Your task to perform on an android device: Go to notification settings Image 0: 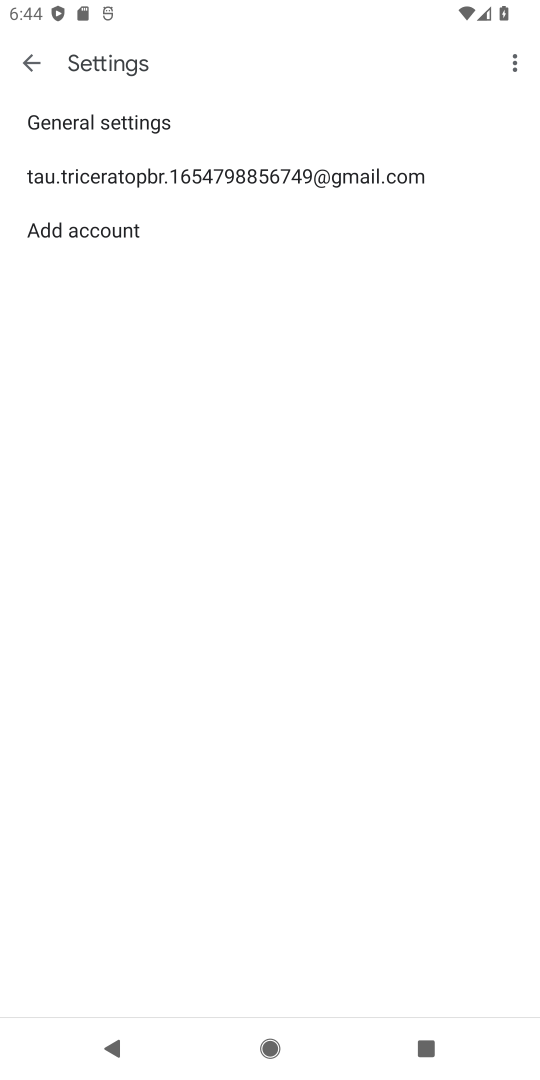
Step 0: press home button
Your task to perform on an android device: Go to notification settings Image 1: 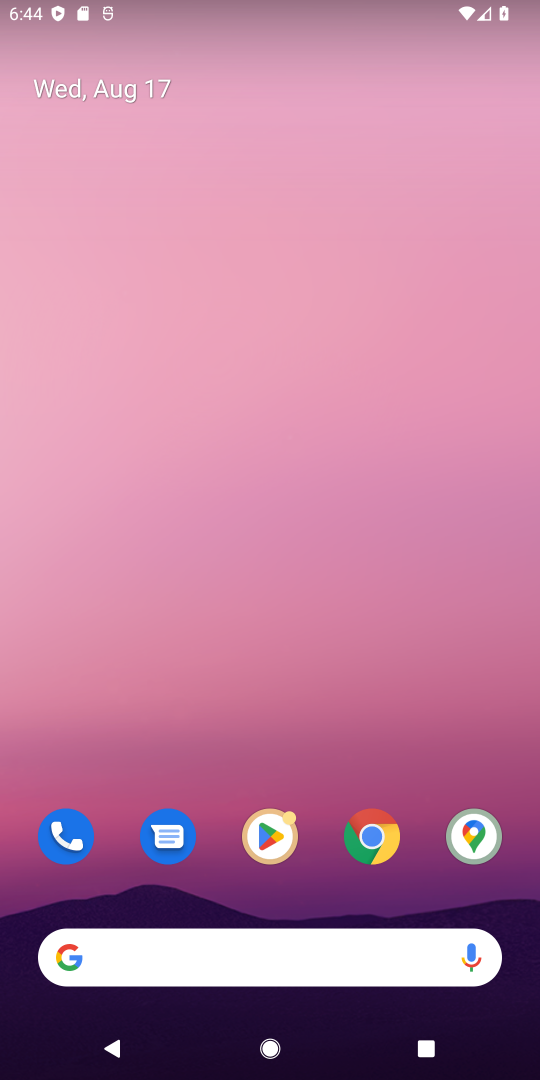
Step 1: click (293, 29)
Your task to perform on an android device: Go to notification settings Image 2: 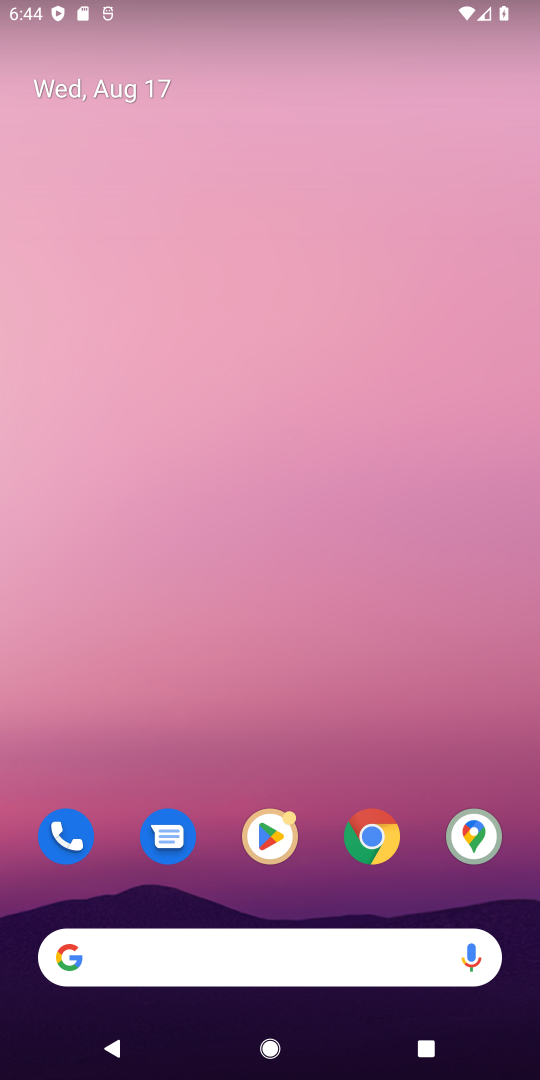
Step 2: drag from (236, 861) to (317, 495)
Your task to perform on an android device: Go to notification settings Image 3: 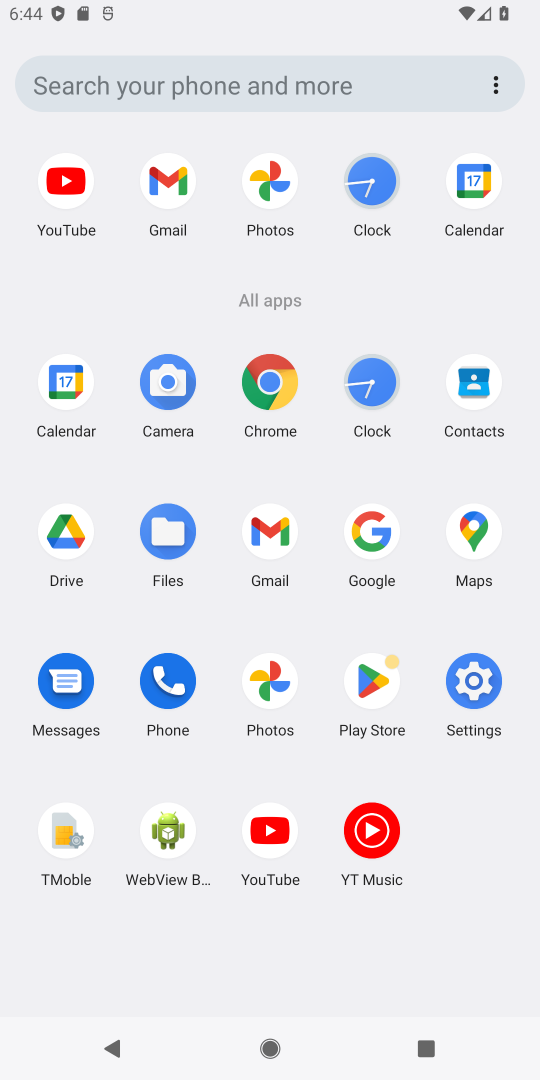
Step 3: click (479, 670)
Your task to perform on an android device: Go to notification settings Image 4: 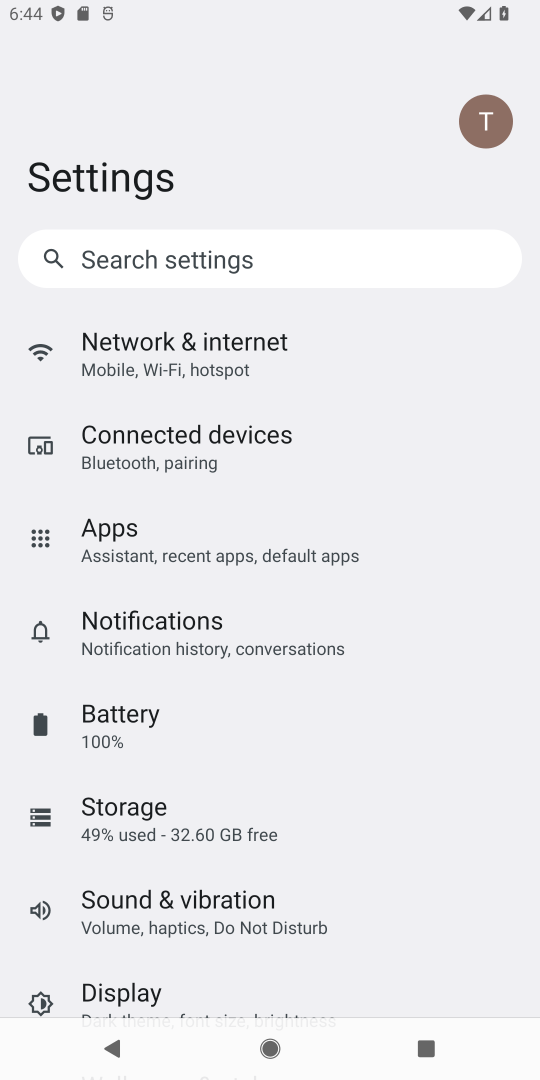
Step 4: click (213, 609)
Your task to perform on an android device: Go to notification settings Image 5: 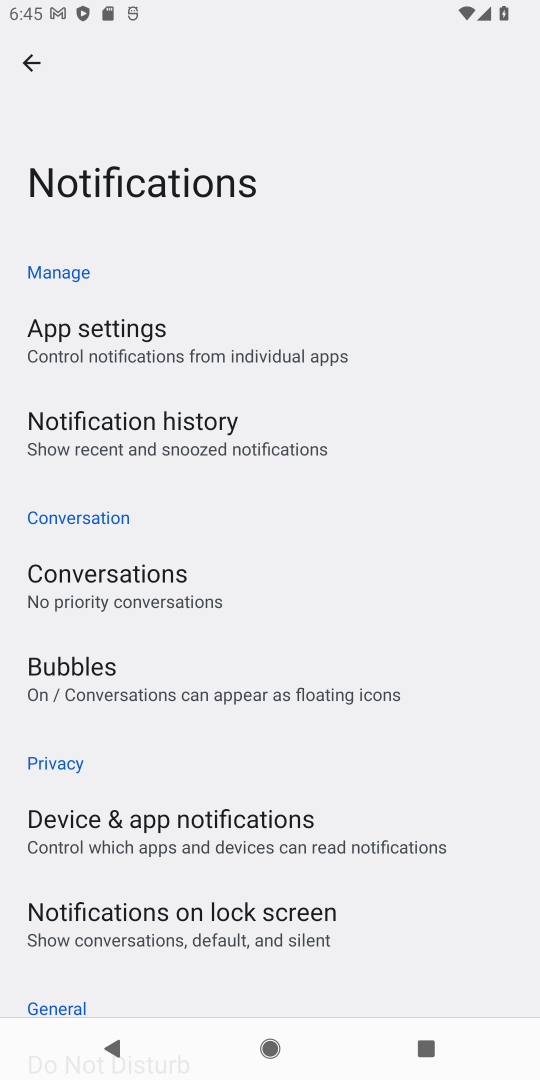
Step 5: task complete